Your task to perform on an android device: toggle wifi Image 0: 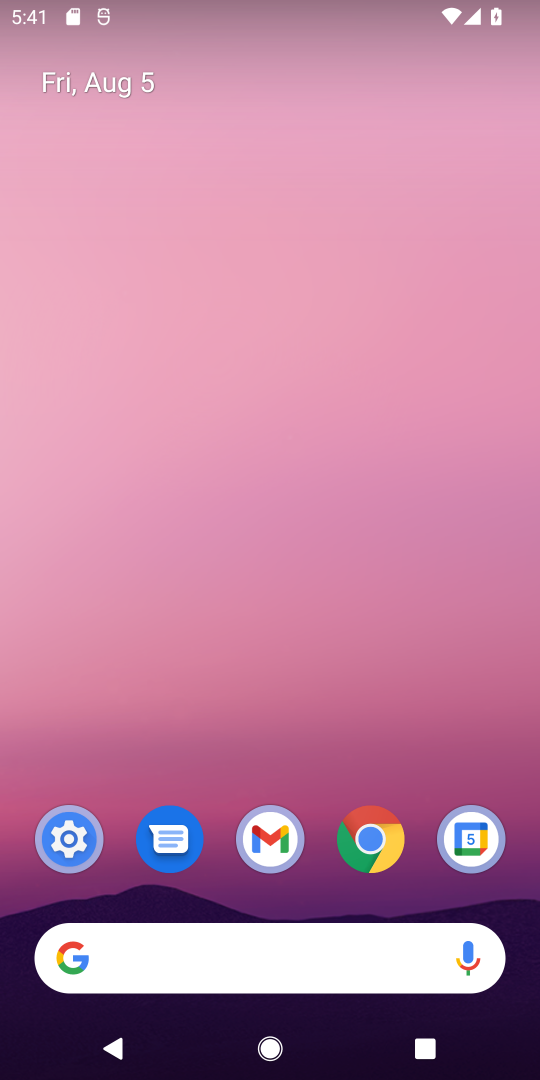
Step 0: drag from (277, 673) to (277, 185)
Your task to perform on an android device: toggle wifi Image 1: 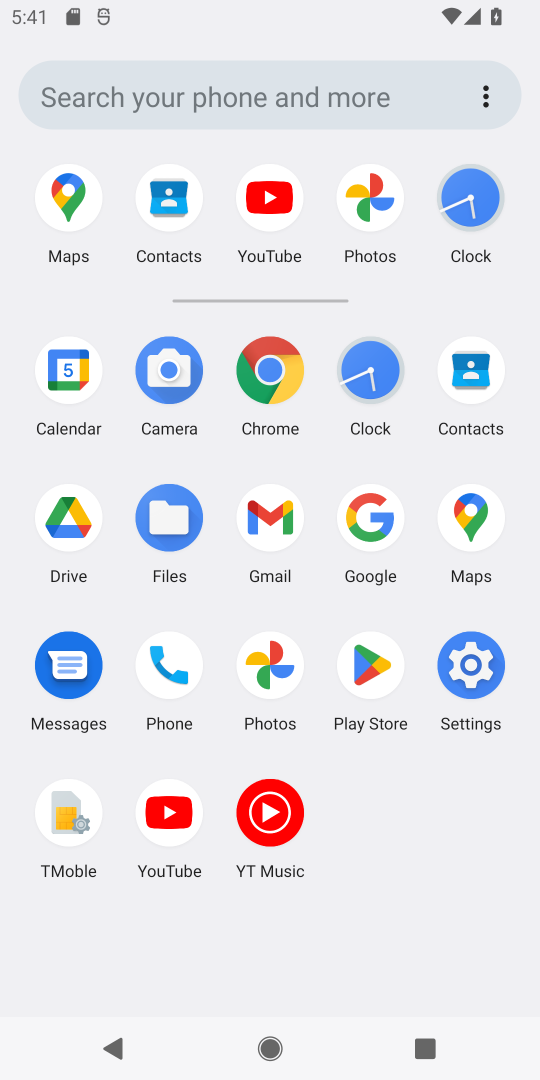
Step 1: click (445, 680)
Your task to perform on an android device: toggle wifi Image 2: 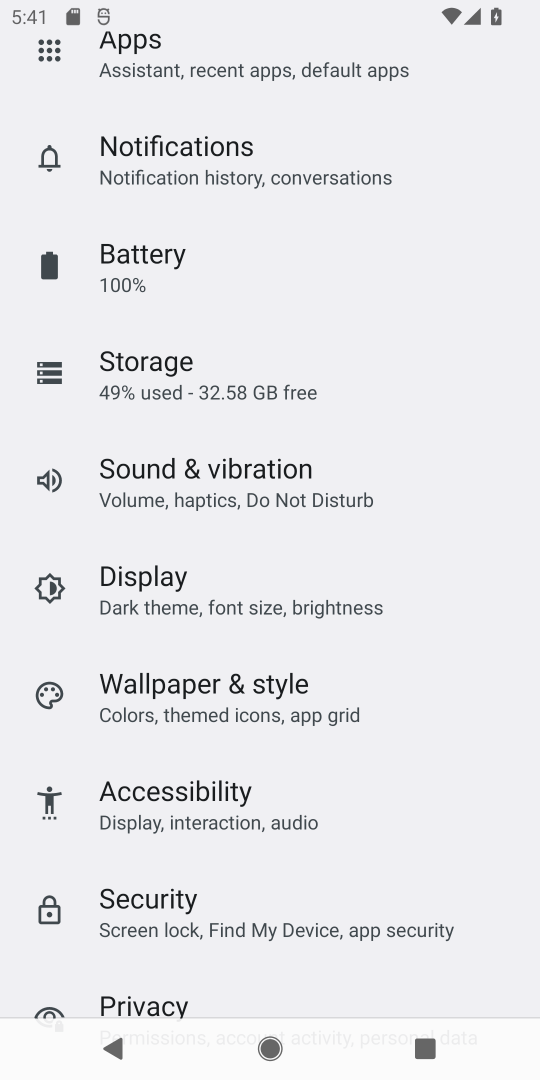
Step 2: drag from (268, 227) to (274, 734)
Your task to perform on an android device: toggle wifi Image 3: 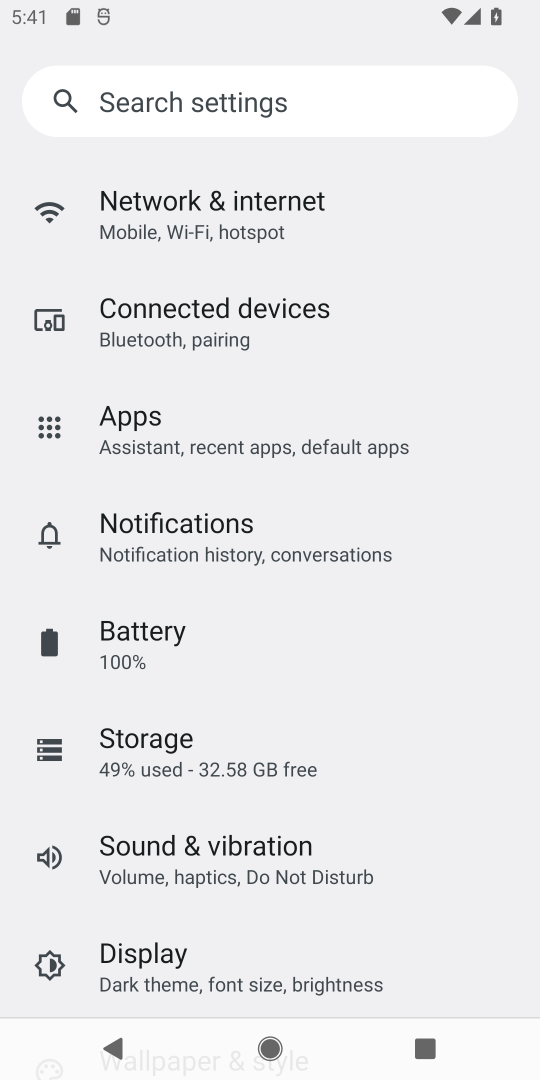
Step 3: click (186, 232)
Your task to perform on an android device: toggle wifi Image 4: 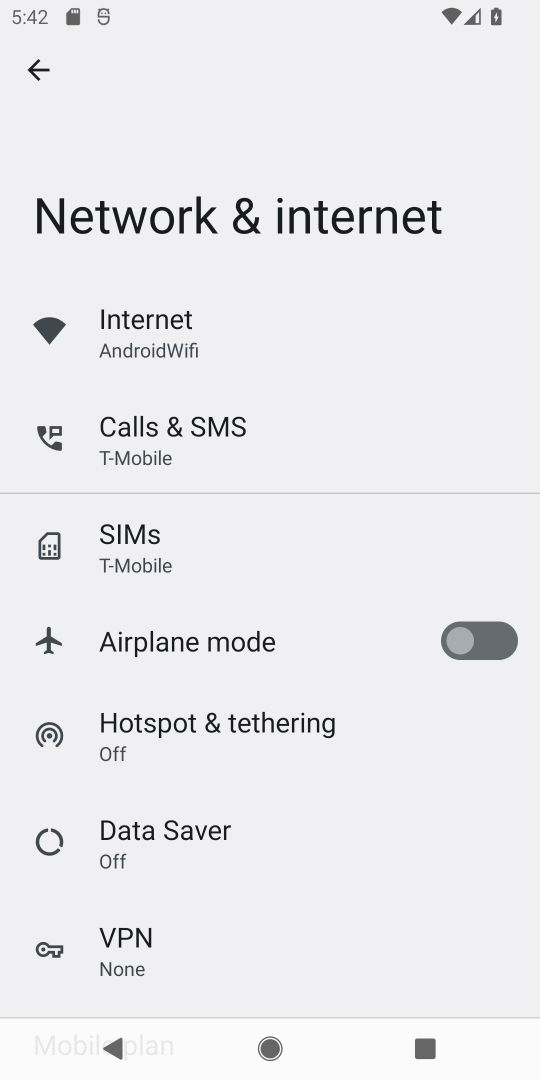
Step 4: click (195, 355)
Your task to perform on an android device: toggle wifi Image 5: 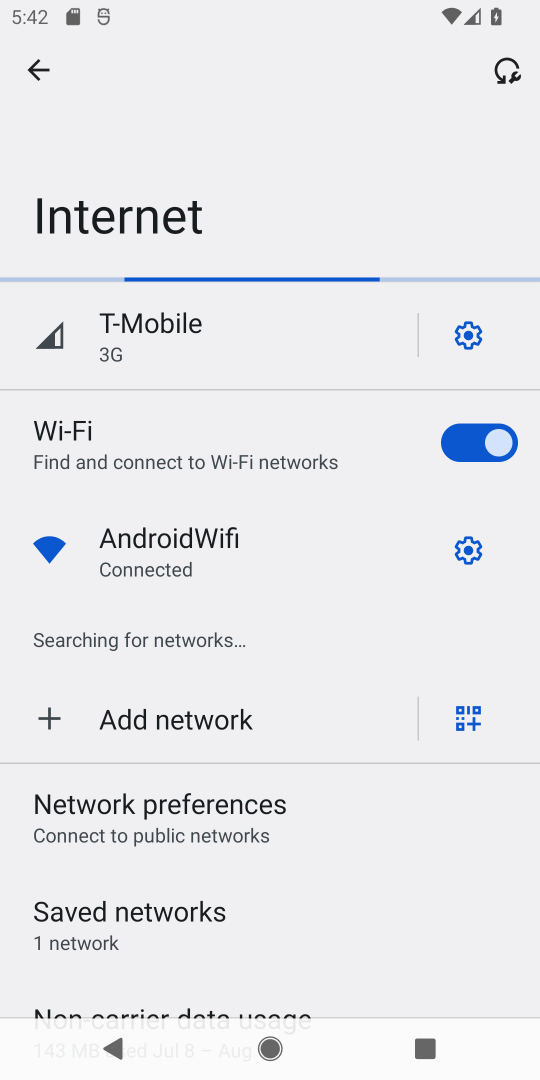
Step 5: click (444, 430)
Your task to perform on an android device: toggle wifi Image 6: 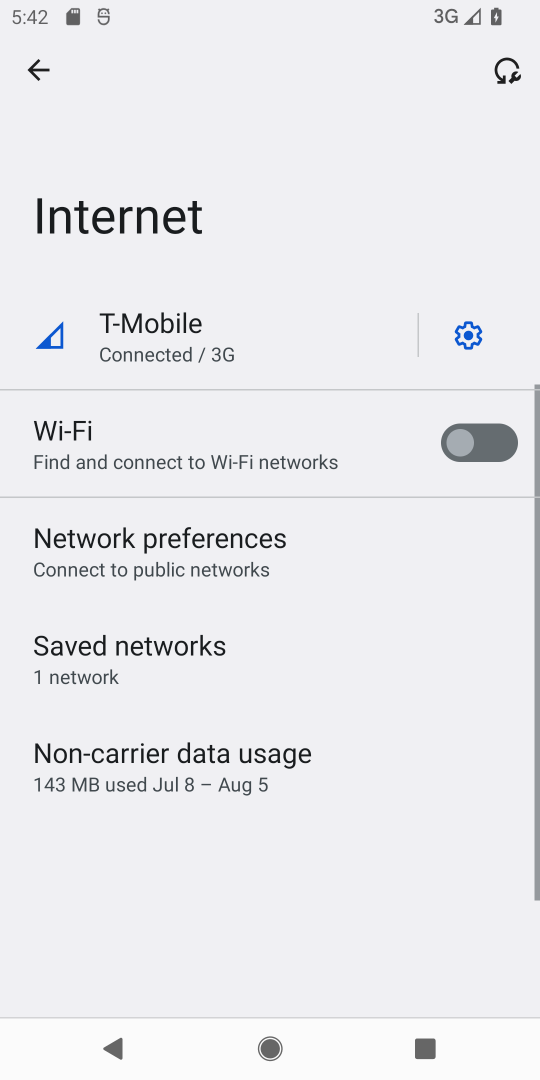
Step 6: task complete